Your task to perform on an android device: change text size in settings app Image 0: 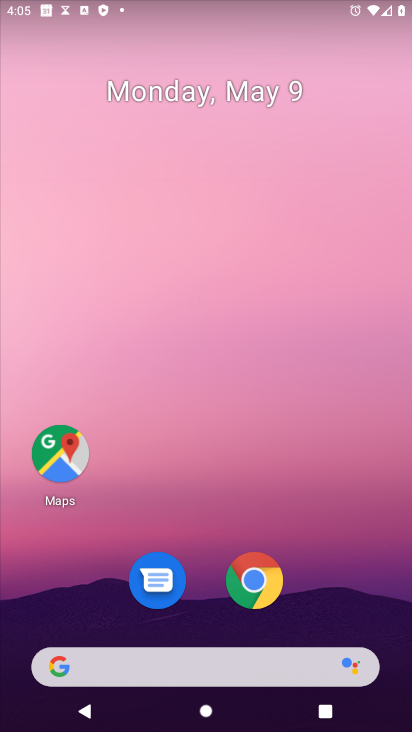
Step 0: drag from (267, 229) to (260, 43)
Your task to perform on an android device: change text size in settings app Image 1: 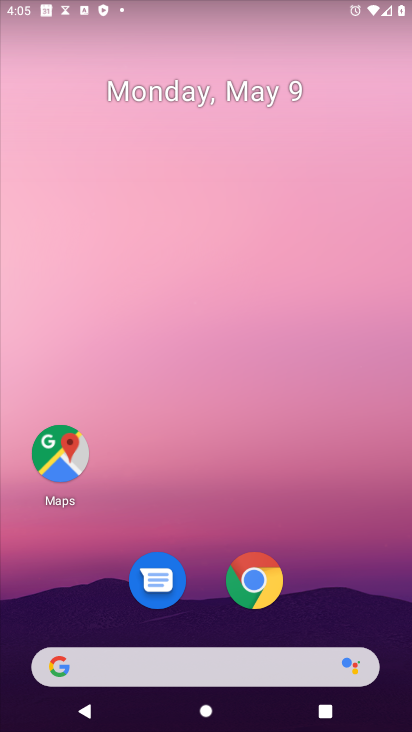
Step 1: drag from (336, 581) to (240, 27)
Your task to perform on an android device: change text size in settings app Image 2: 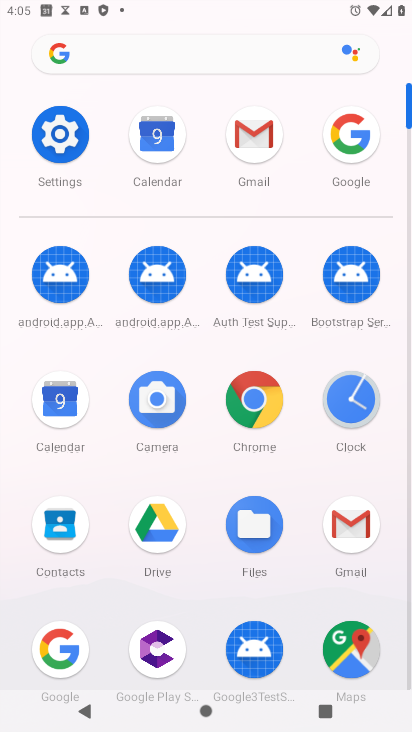
Step 2: click (58, 141)
Your task to perform on an android device: change text size in settings app Image 3: 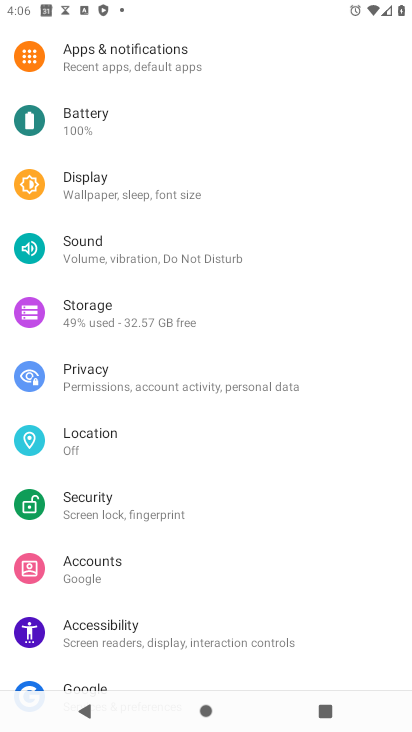
Step 3: click (157, 171)
Your task to perform on an android device: change text size in settings app Image 4: 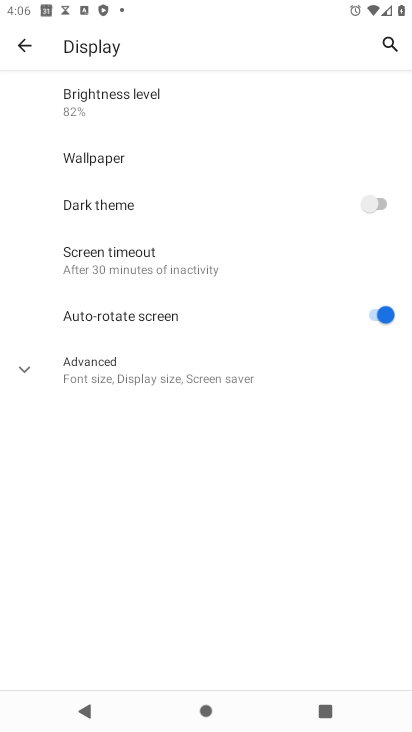
Step 4: click (143, 375)
Your task to perform on an android device: change text size in settings app Image 5: 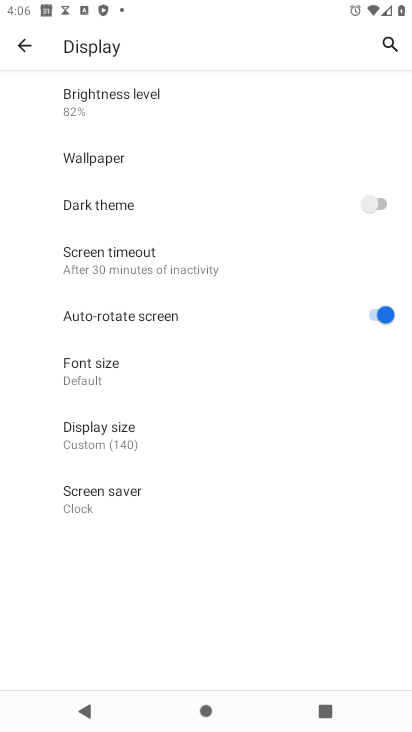
Step 5: click (160, 373)
Your task to perform on an android device: change text size in settings app Image 6: 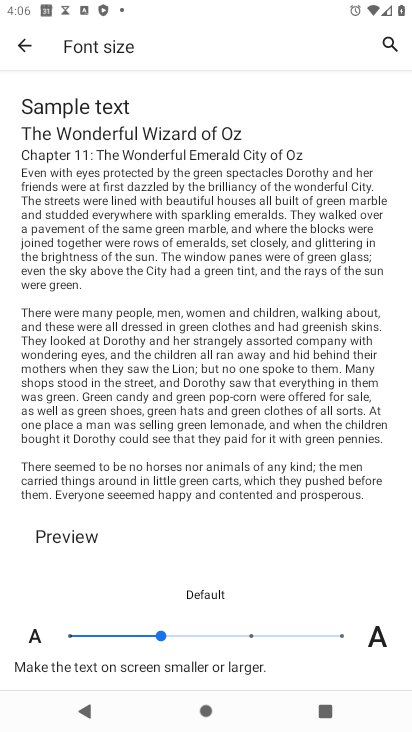
Step 6: click (70, 636)
Your task to perform on an android device: change text size in settings app Image 7: 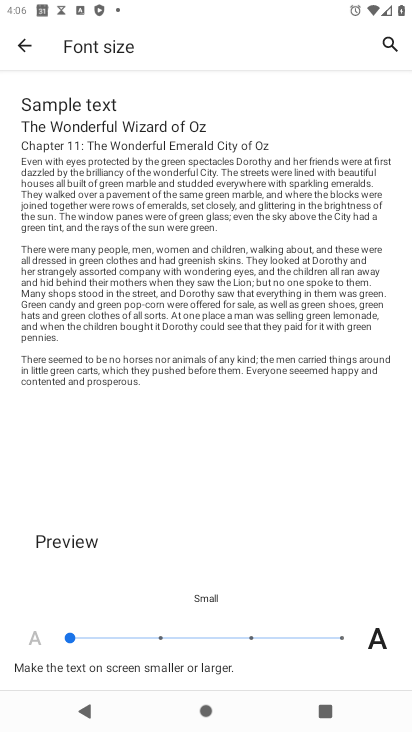
Step 7: task complete